Your task to perform on an android device: Add beats solo 3 to the cart on walmart Image 0: 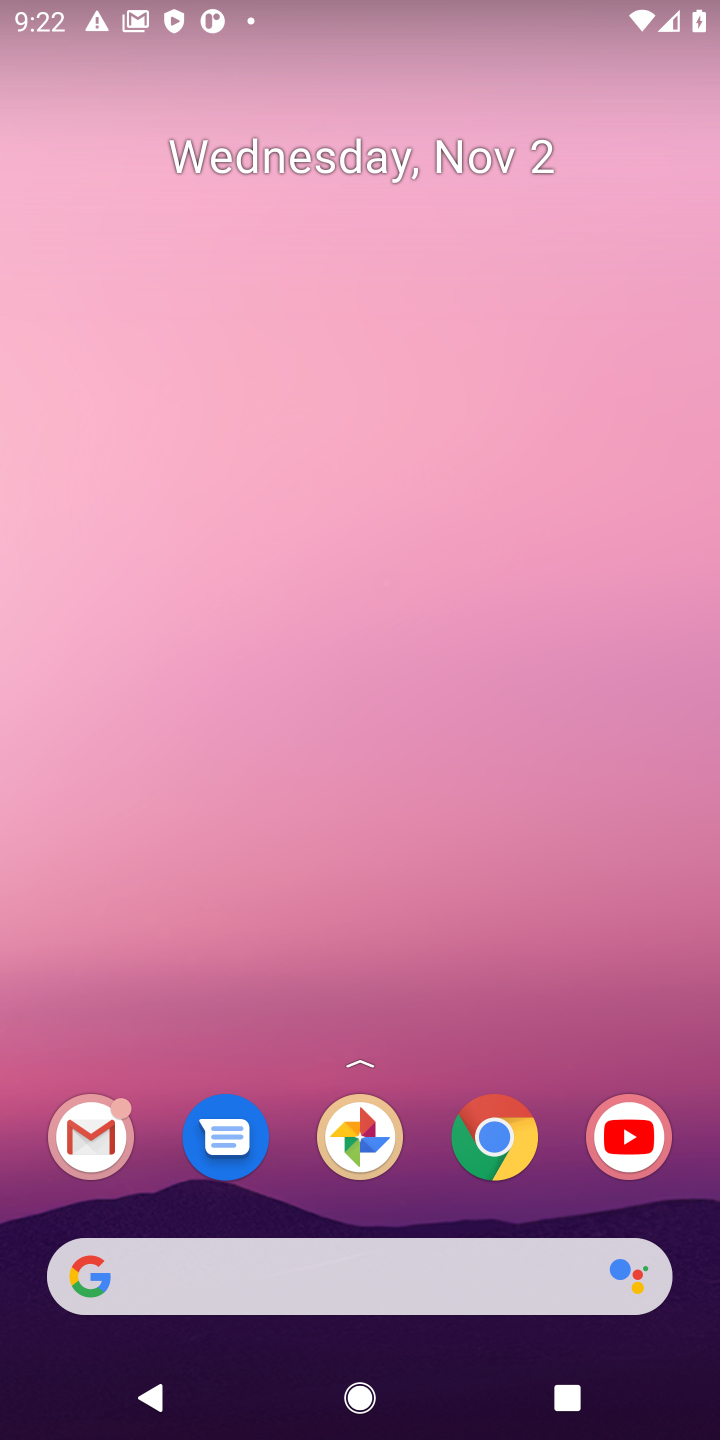
Step 0: click (499, 1133)
Your task to perform on an android device: Add beats solo 3 to the cart on walmart Image 1: 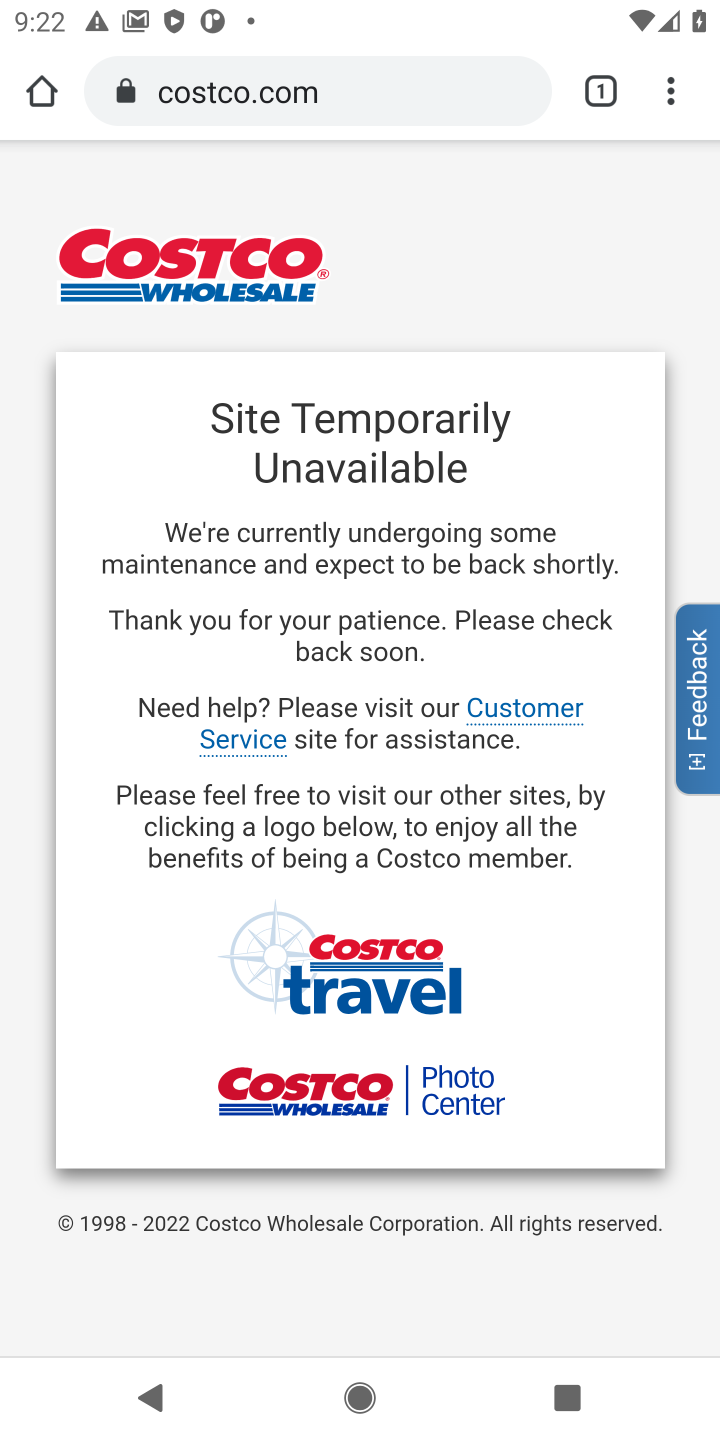
Step 1: click (388, 63)
Your task to perform on an android device: Add beats solo 3 to the cart on walmart Image 2: 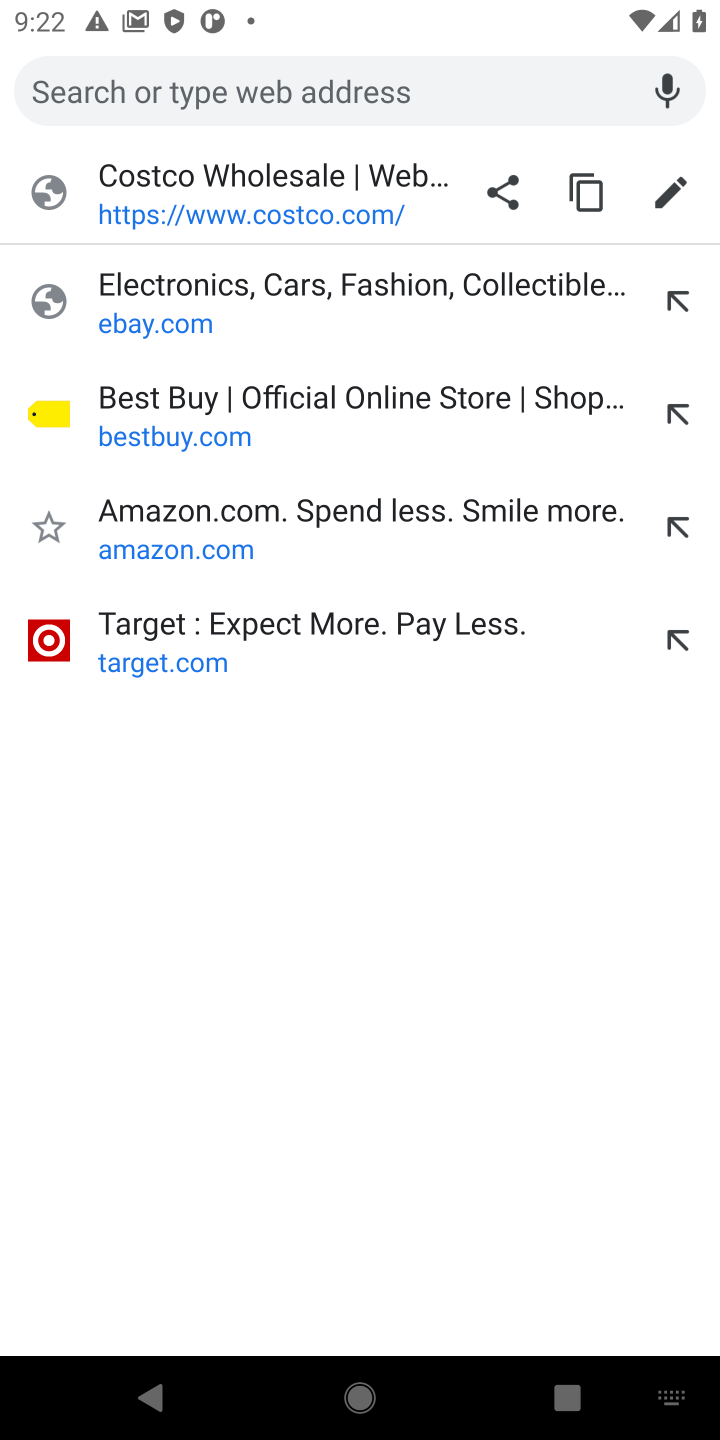
Step 2: type "walmart"
Your task to perform on an android device: Add beats solo 3 to the cart on walmart Image 3: 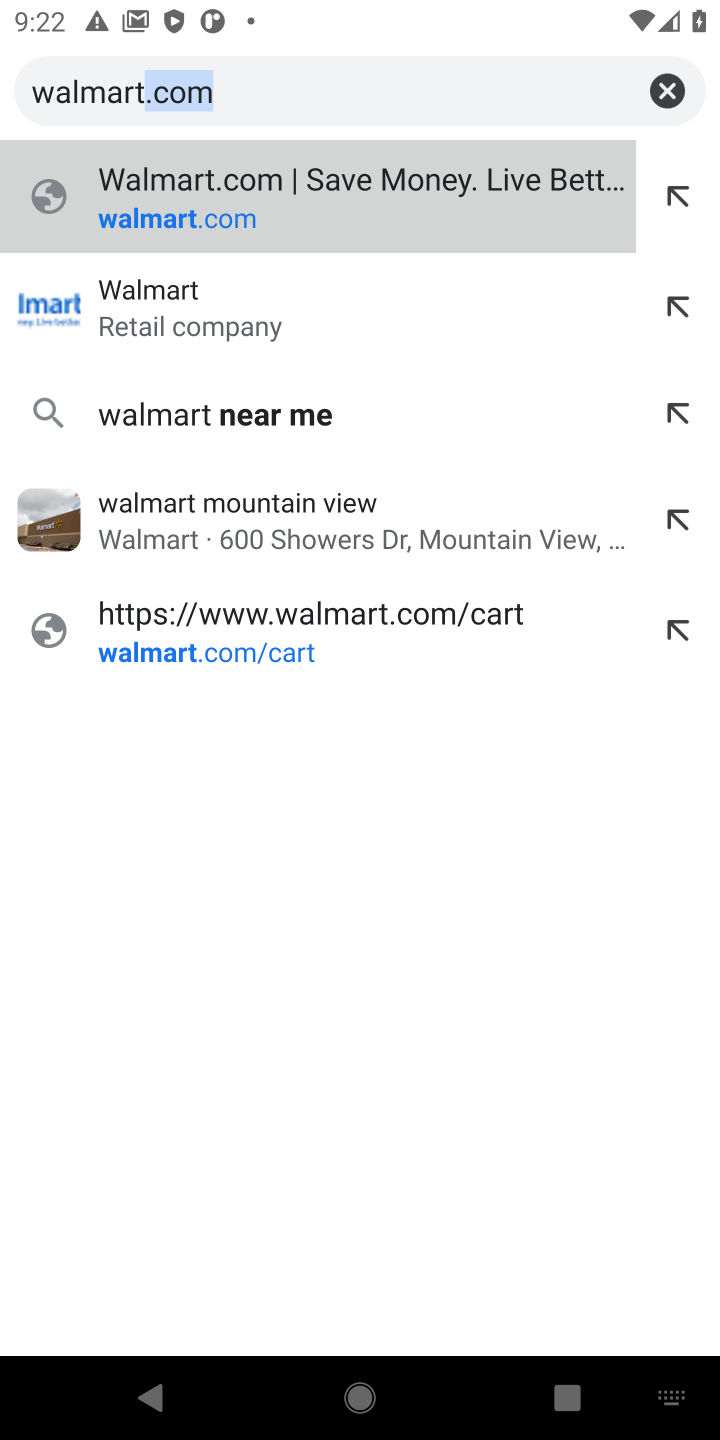
Step 3: click (175, 189)
Your task to perform on an android device: Add beats solo 3 to the cart on walmart Image 4: 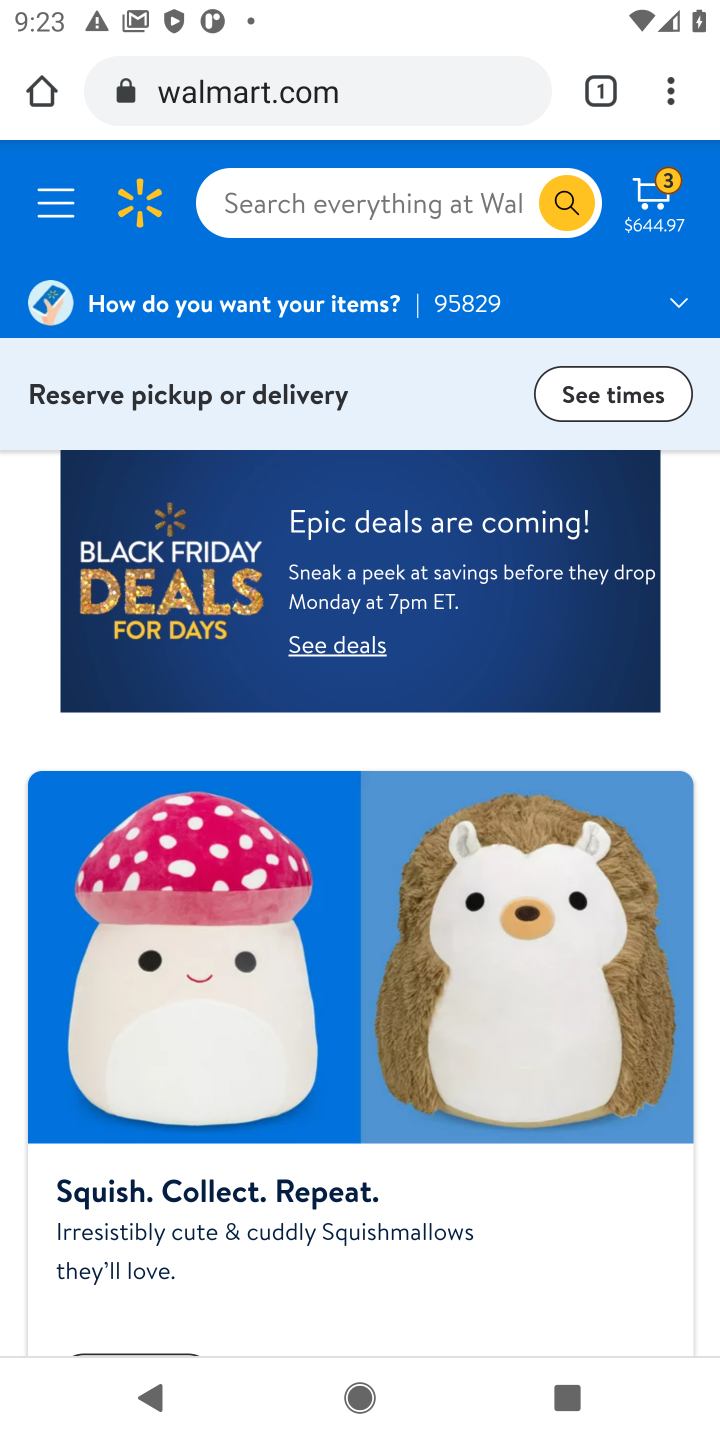
Step 4: click (313, 200)
Your task to perform on an android device: Add beats solo 3 to the cart on walmart Image 5: 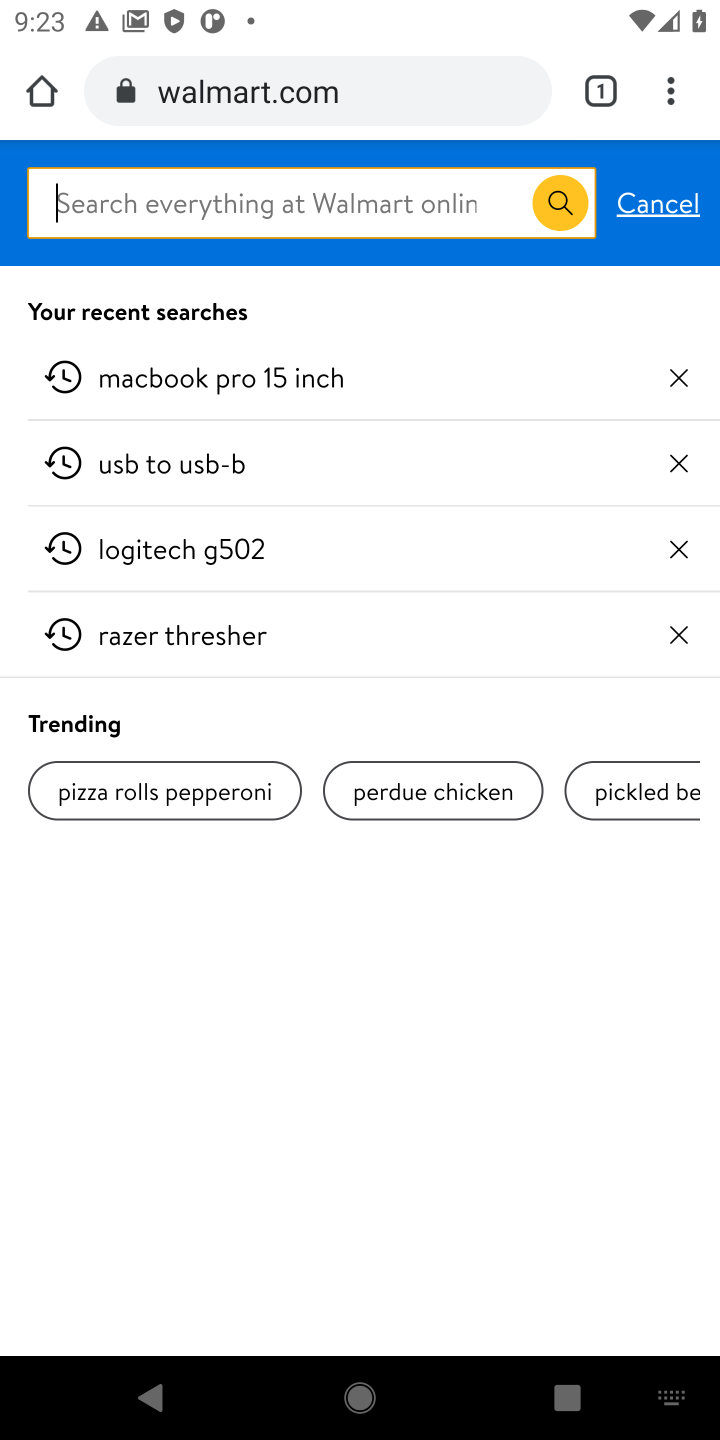
Step 5: type "beats solo 3"
Your task to perform on an android device: Add beats solo 3 to the cart on walmart Image 6: 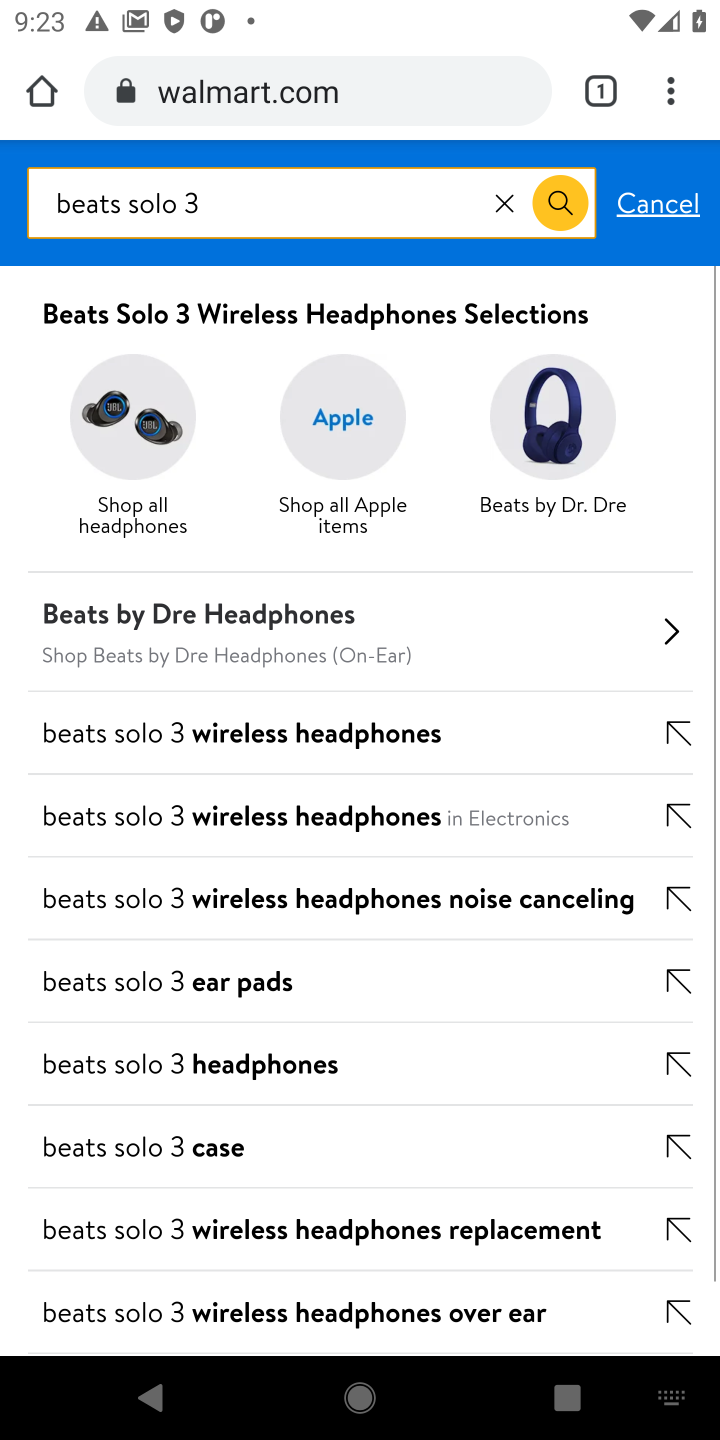
Step 6: click (112, 725)
Your task to perform on an android device: Add beats solo 3 to the cart on walmart Image 7: 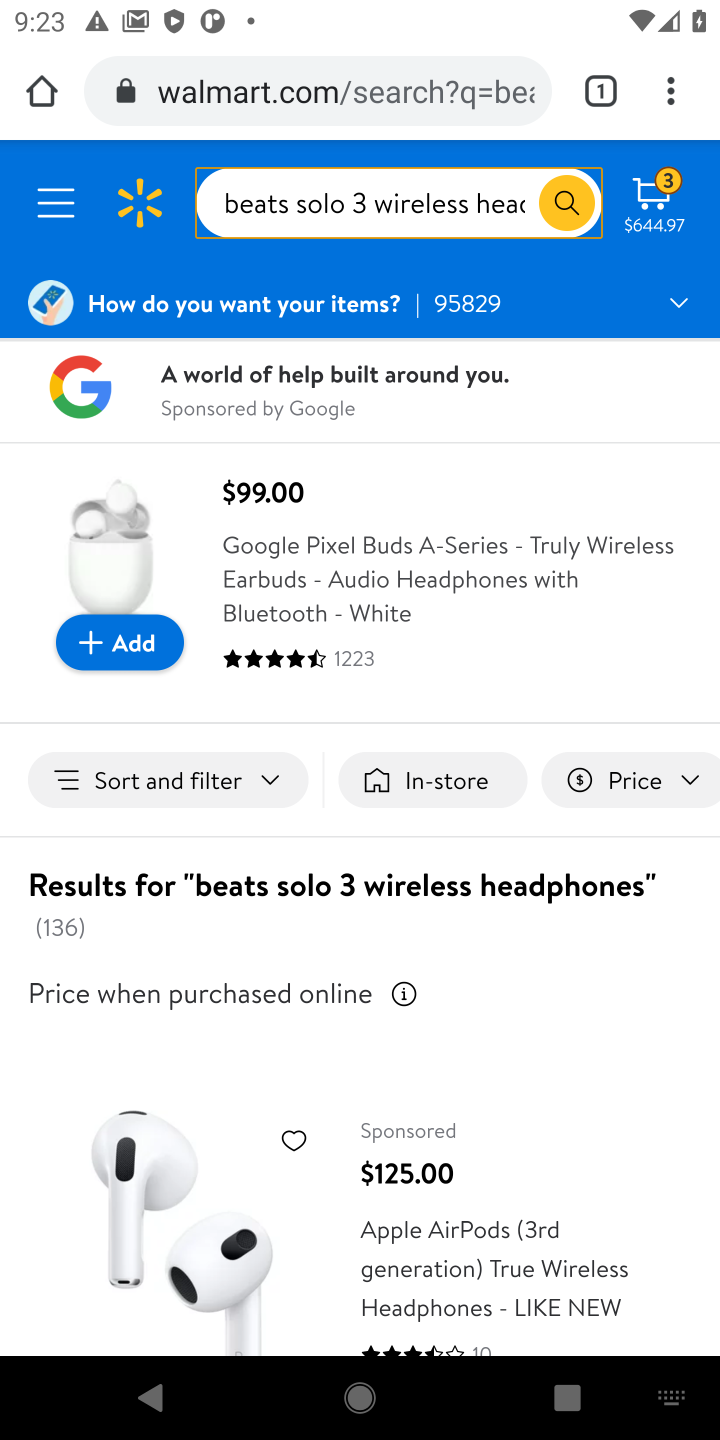
Step 7: click (502, 977)
Your task to perform on an android device: Add beats solo 3 to the cart on walmart Image 8: 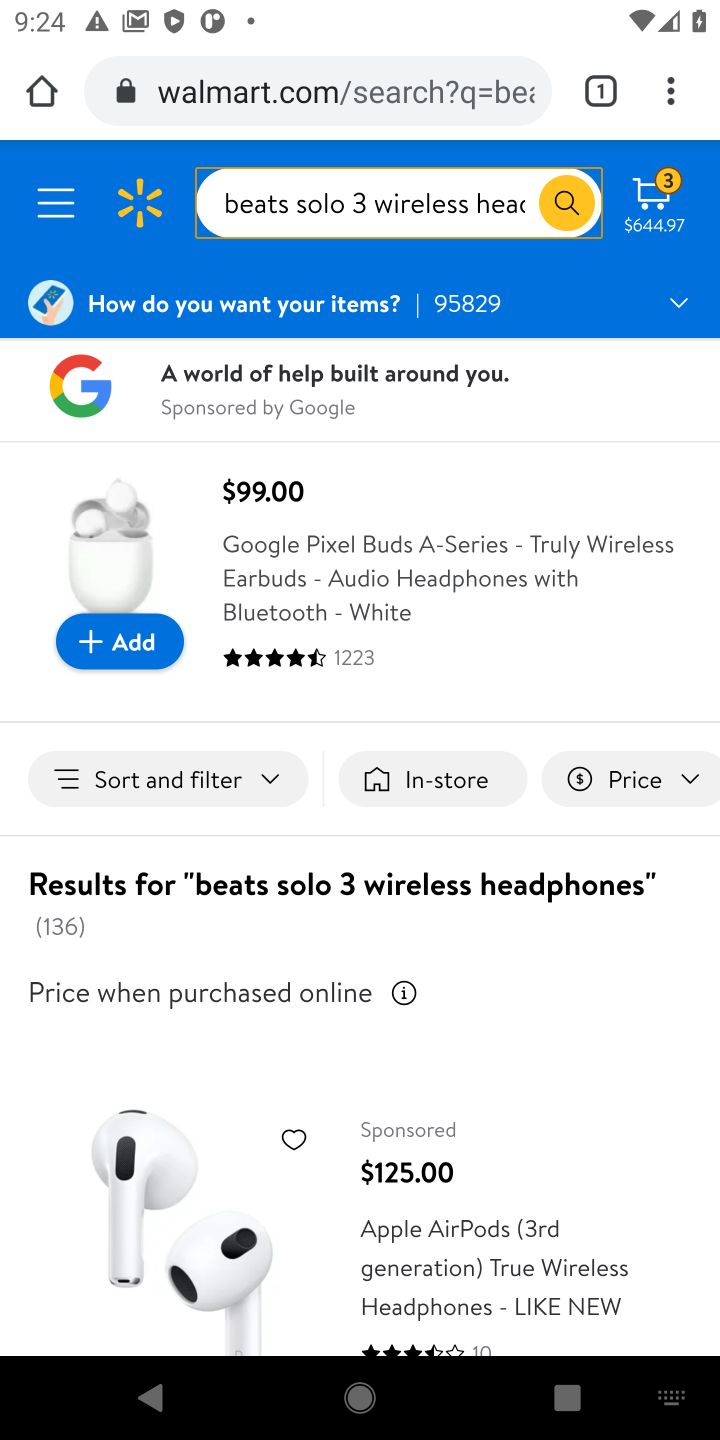
Step 8: drag from (464, 1058) to (523, 541)
Your task to perform on an android device: Add beats solo 3 to the cart on walmart Image 9: 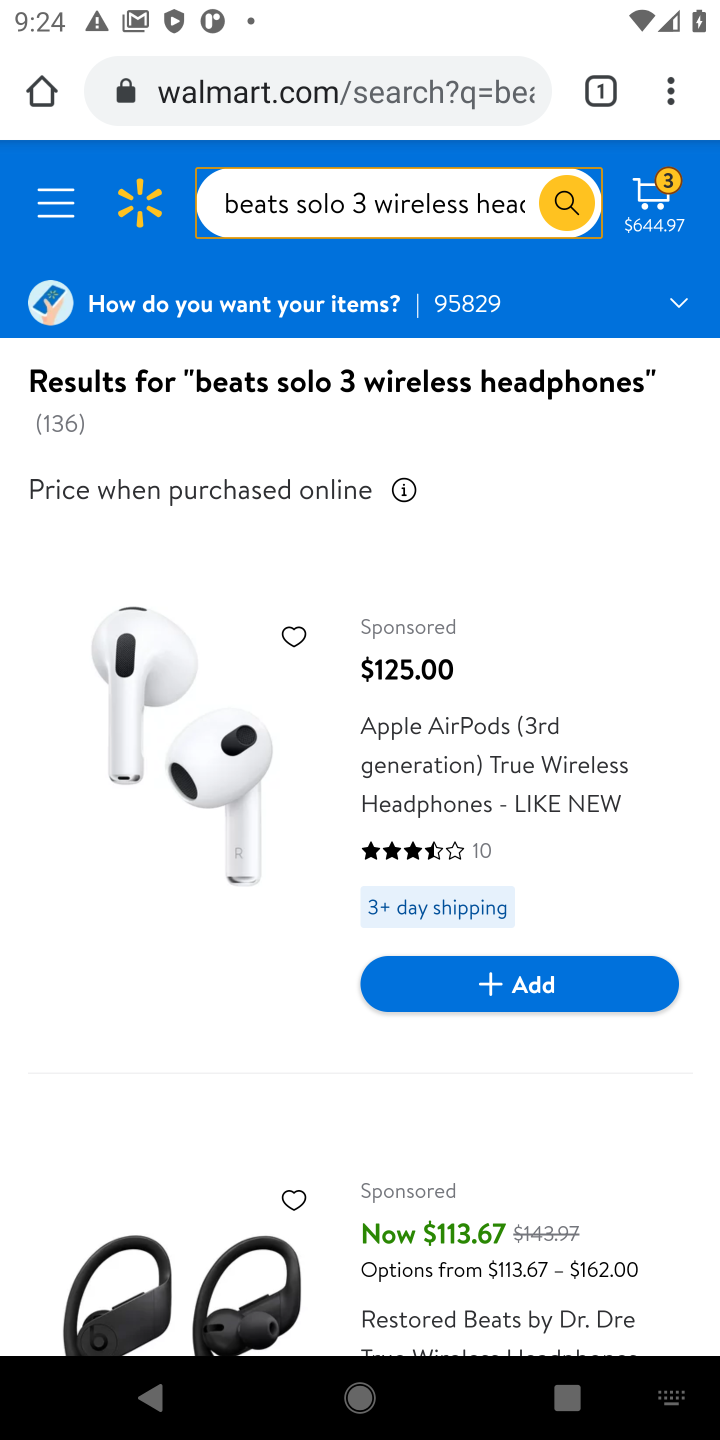
Step 9: drag from (489, 1086) to (535, 645)
Your task to perform on an android device: Add beats solo 3 to the cart on walmart Image 10: 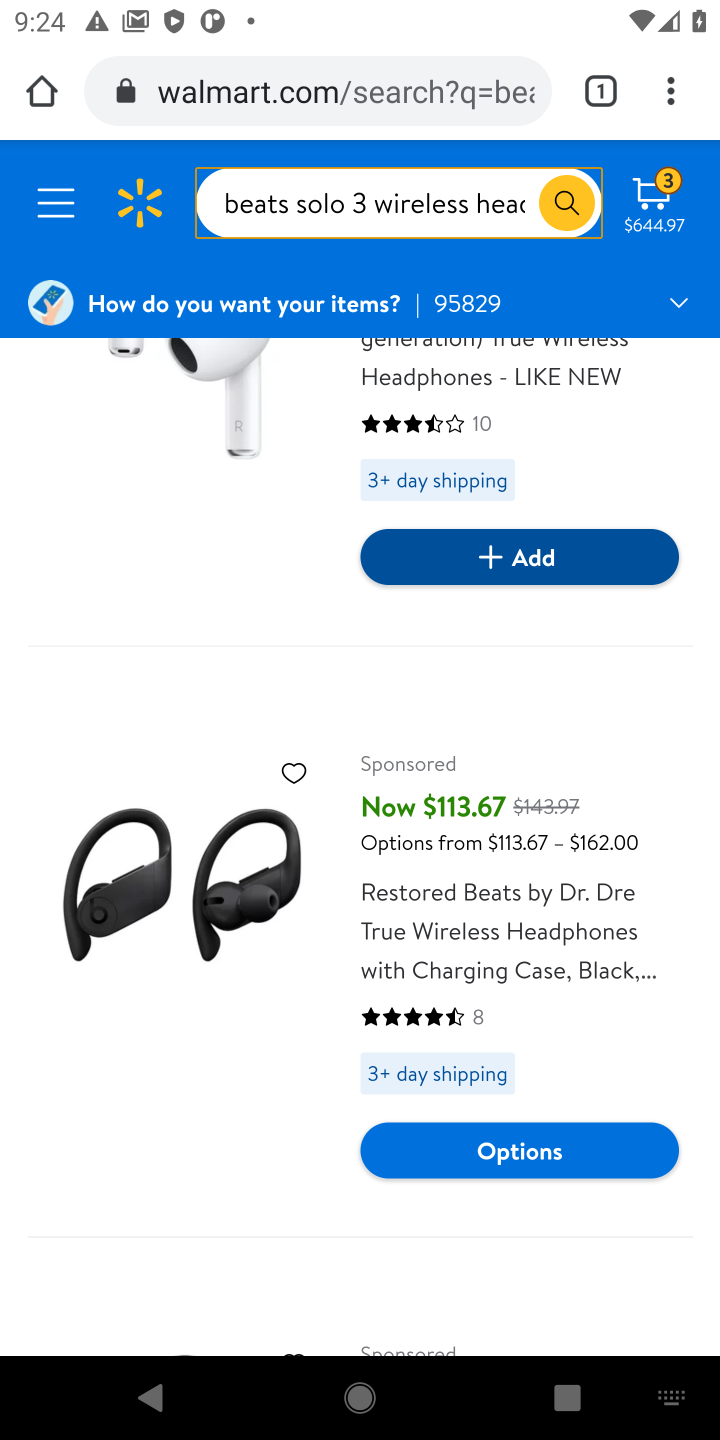
Step 10: drag from (331, 1003) to (376, 658)
Your task to perform on an android device: Add beats solo 3 to the cart on walmart Image 11: 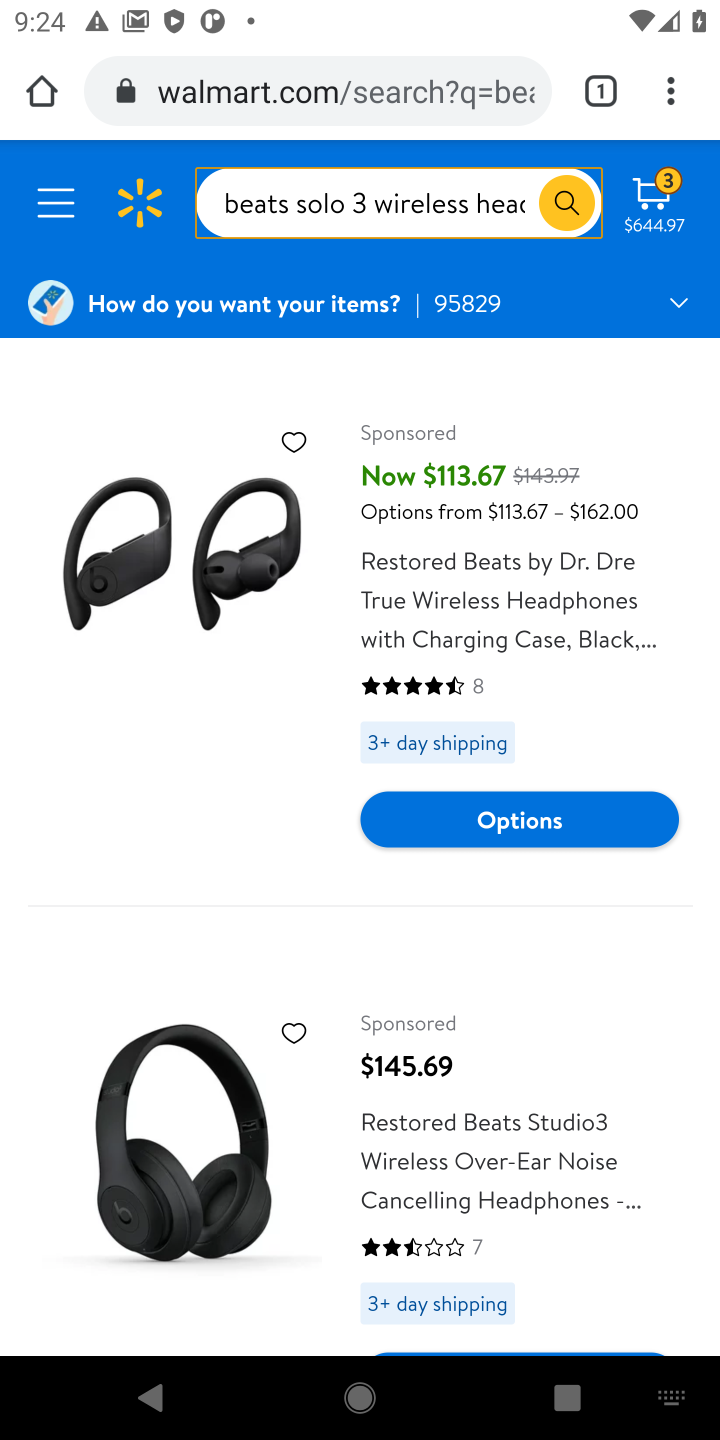
Step 11: drag from (304, 997) to (315, 590)
Your task to perform on an android device: Add beats solo 3 to the cart on walmart Image 12: 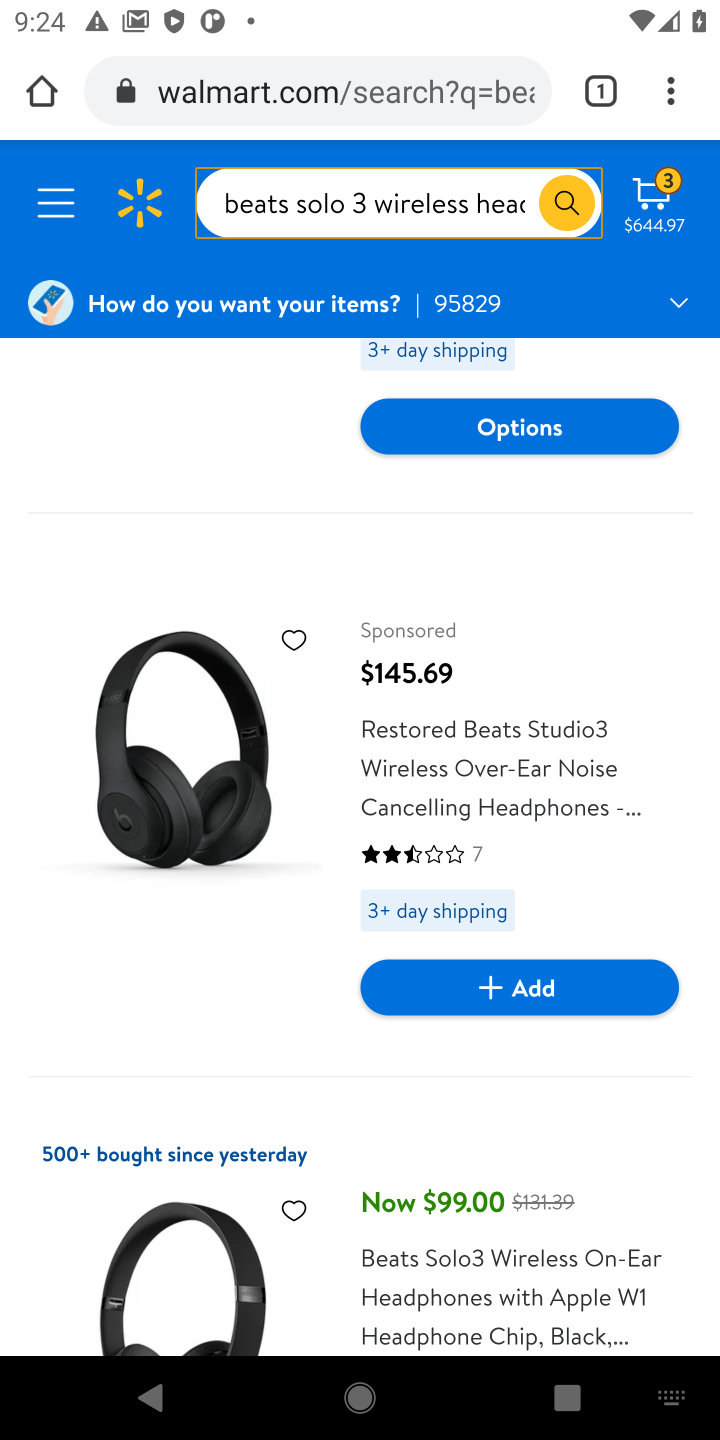
Step 12: drag from (308, 1009) to (326, 619)
Your task to perform on an android device: Add beats solo 3 to the cart on walmart Image 13: 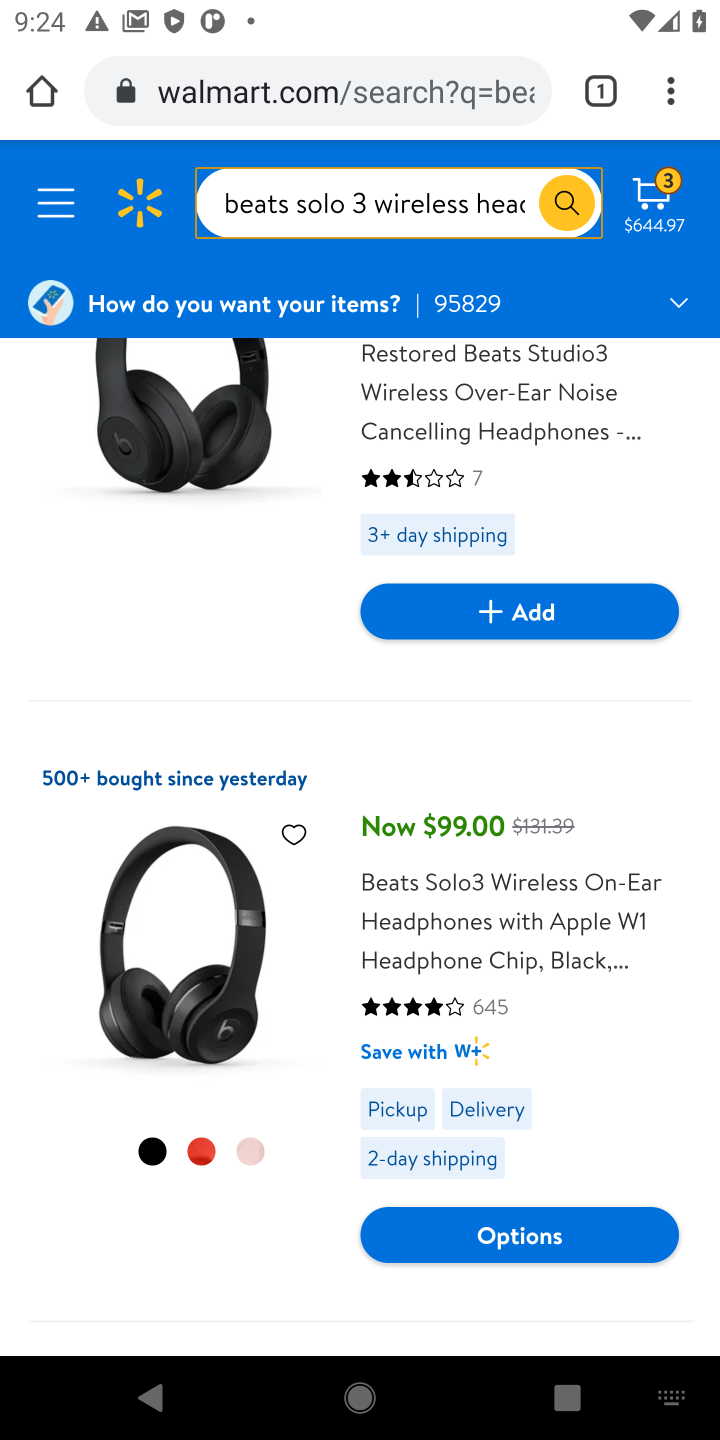
Step 13: click (526, 1232)
Your task to perform on an android device: Add beats solo 3 to the cart on walmart Image 14: 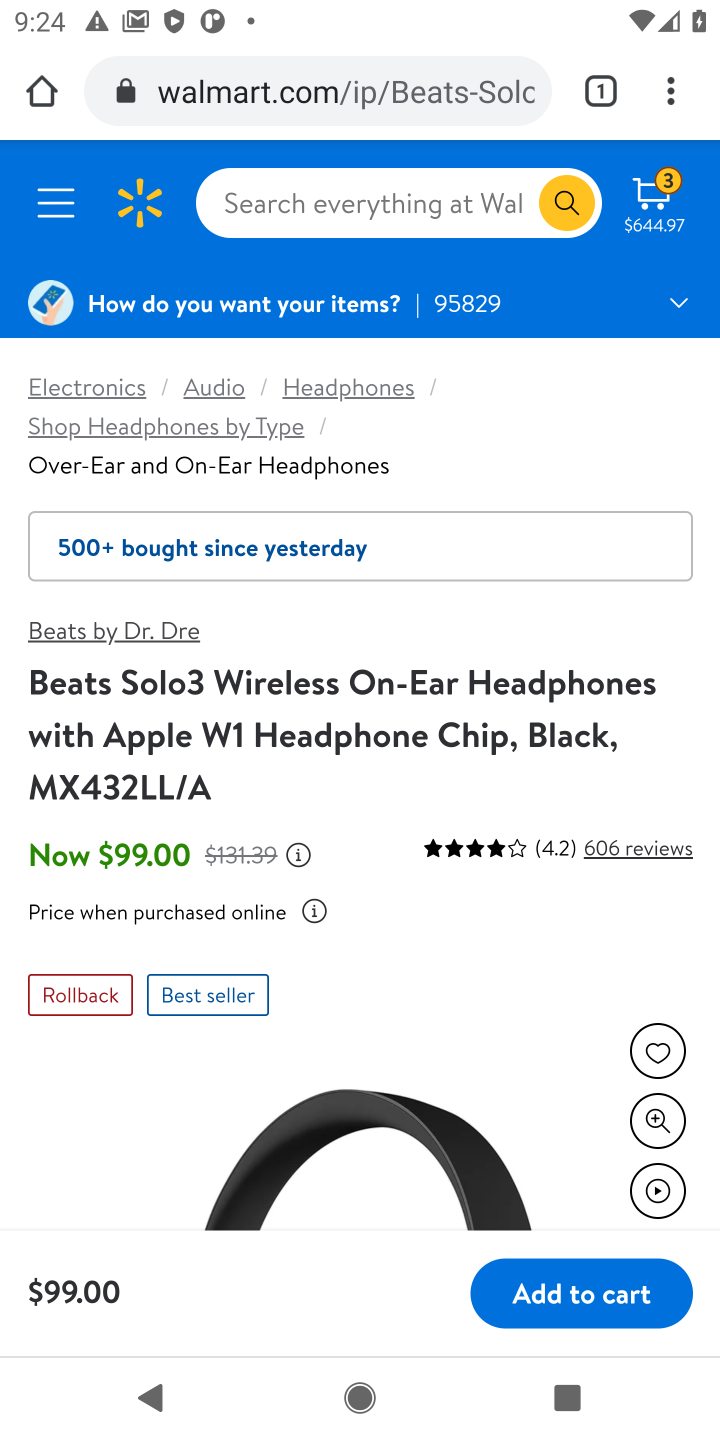
Step 14: click (578, 1292)
Your task to perform on an android device: Add beats solo 3 to the cart on walmart Image 15: 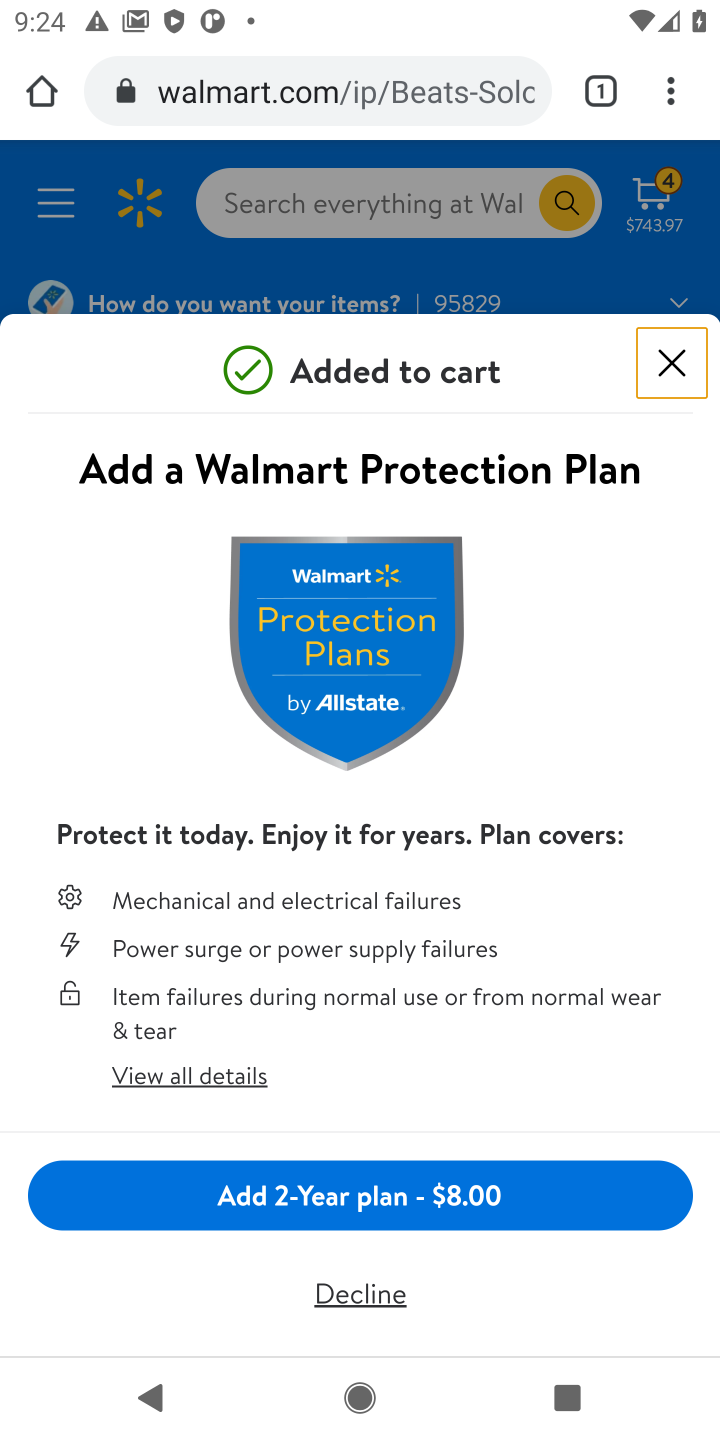
Step 15: click (361, 1287)
Your task to perform on an android device: Add beats solo 3 to the cart on walmart Image 16: 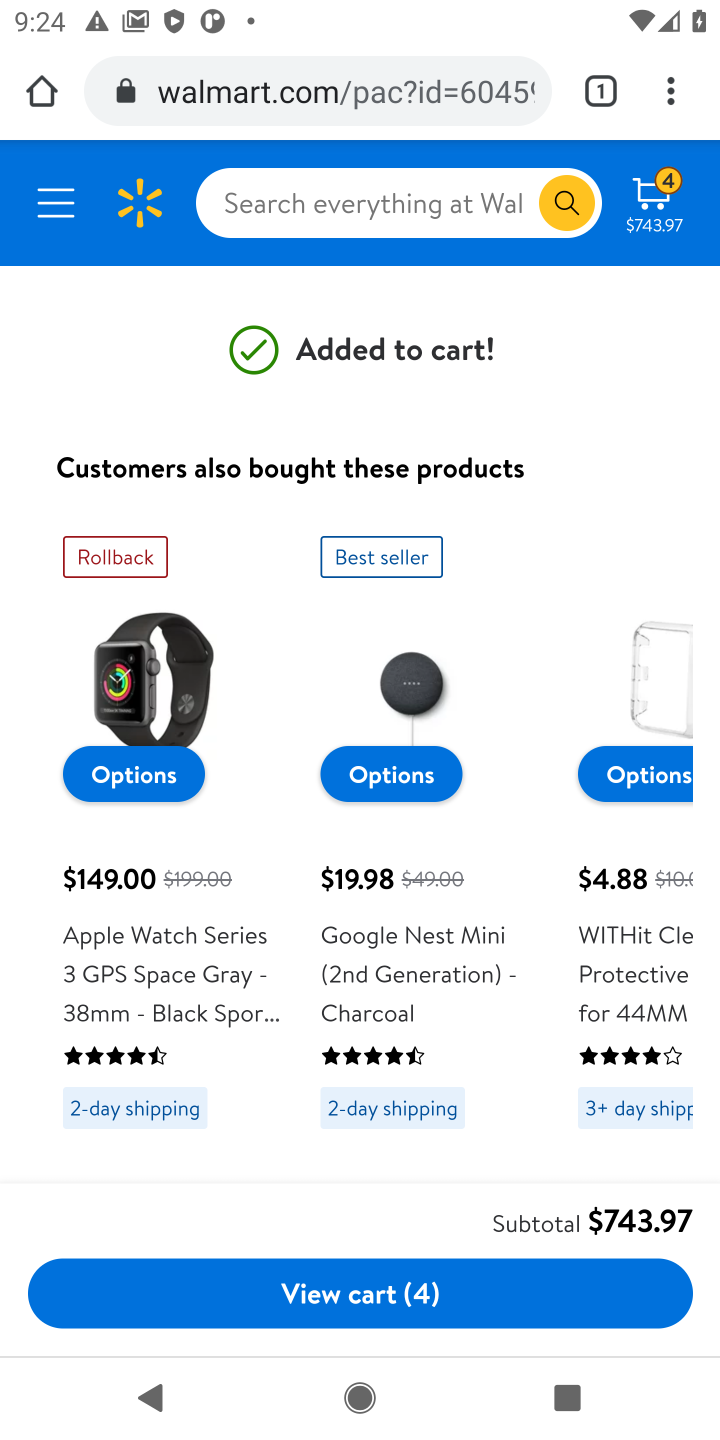
Step 16: task complete